Your task to perform on an android device: Go to Reddit.com Image 0: 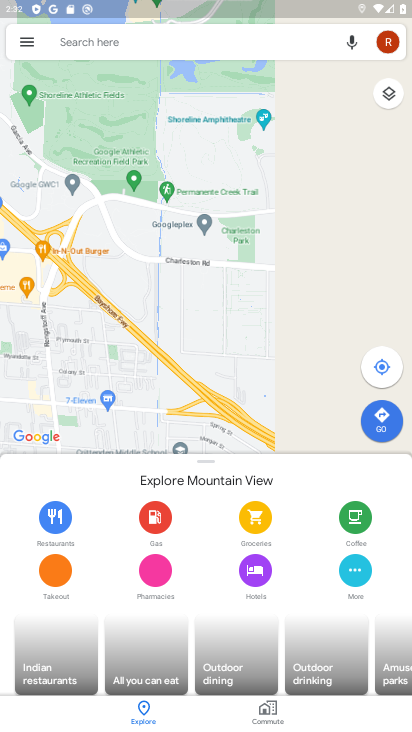
Step 0: press home button
Your task to perform on an android device: Go to Reddit.com Image 1: 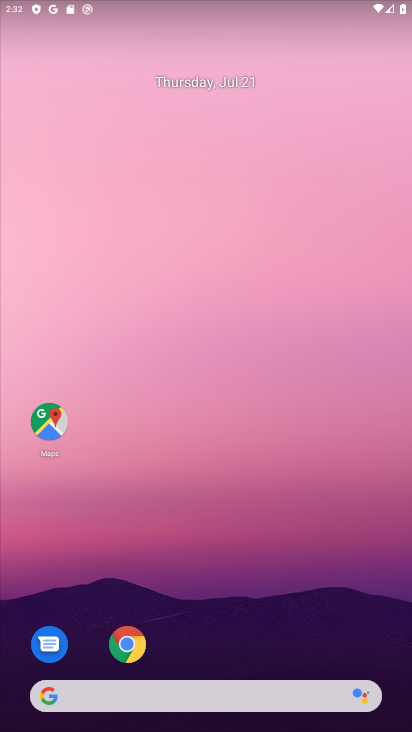
Step 1: click (126, 637)
Your task to perform on an android device: Go to Reddit.com Image 2: 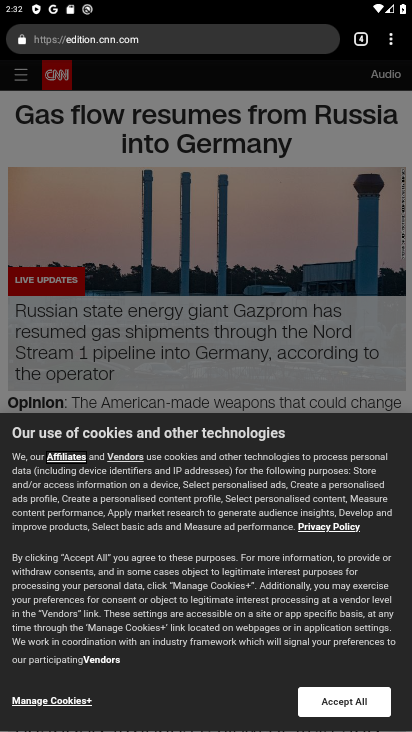
Step 2: click (232, 29)
Your task to perform on an android device: Go to Reddit.com Image 3: 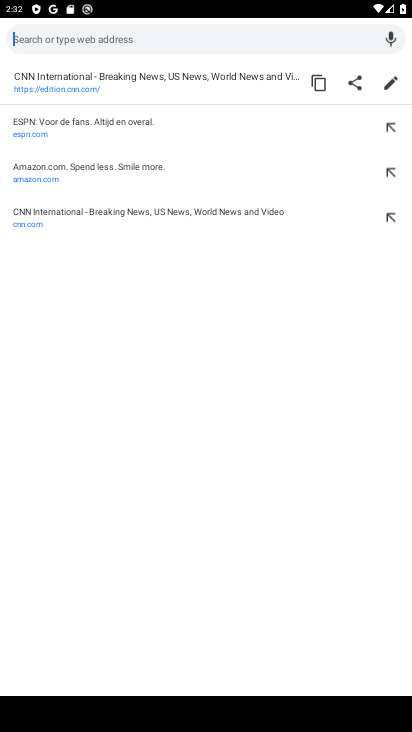
Step 3: type "Reddit.com"
Your task to perform on an android device: Go to Reddit.com Image 4: 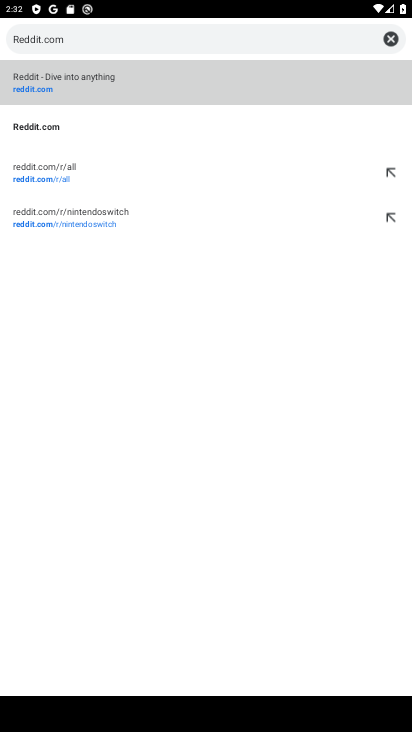
Step 4: click (113, 90)
Your task to perform on an android device: Go to Reddit.com Image 5: 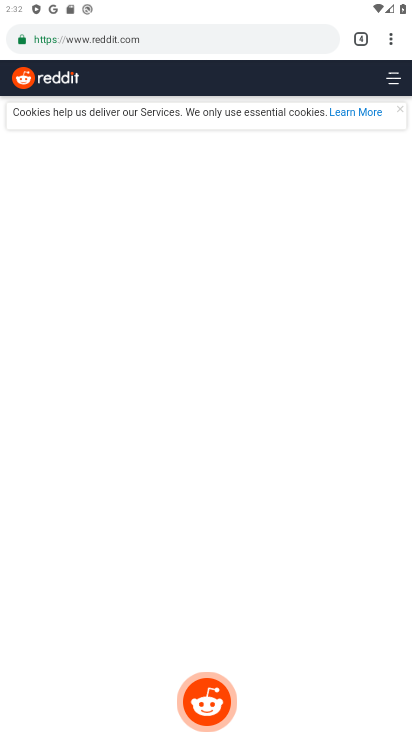
Step 5: task complete